Your task to perform on an android device: Go to network settings Image 0: 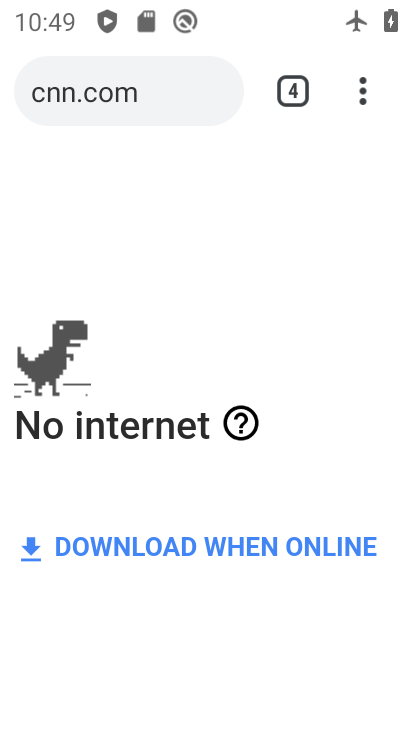
Step 0: press home button
Your task to perform on an android device: Go to network settings Image 1: 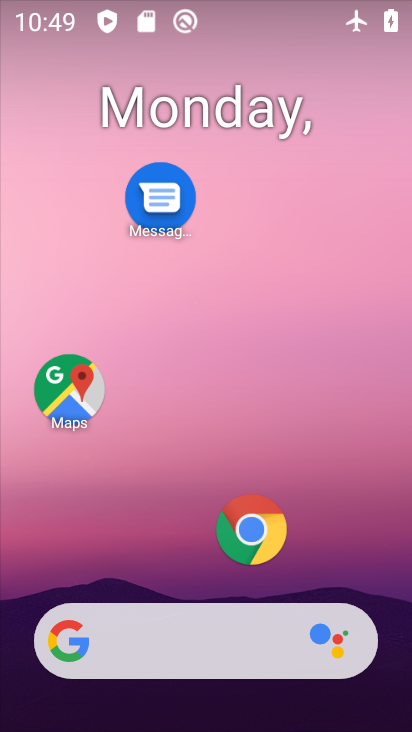
Step 1: drag from (148, 536) to (279, 169)
Your task to perform on an android device: Go to network settings Image 2: 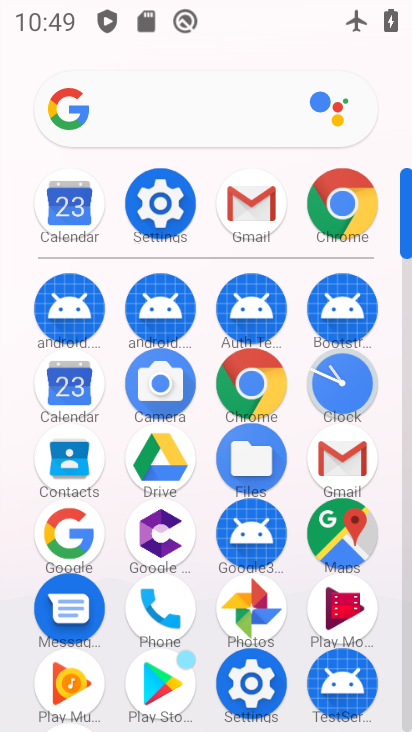
Step 2: click (259, 688)
Your task to perform on an android device: Go to network settings Image 3: 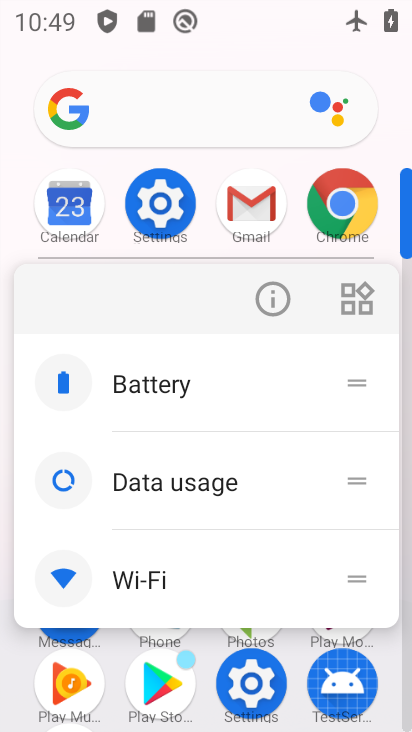
Step 3: click (256, 692)
Your task to perform on an android device: Go to network settings Image 4: 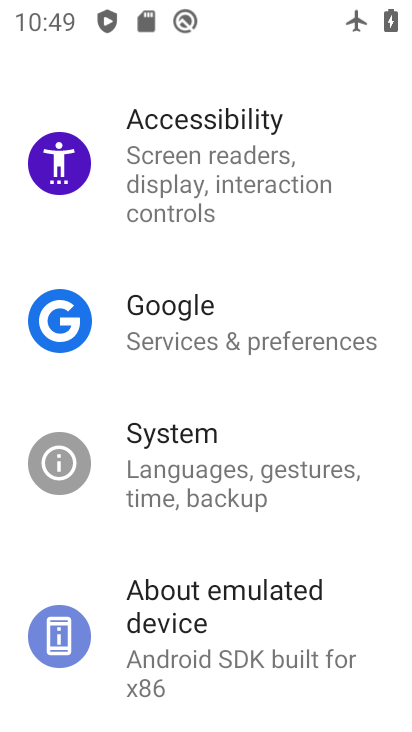
Step 4: drag from (300, 249) to (258, 725)
Your task to perform on an android device: Go to network settings Image 5: 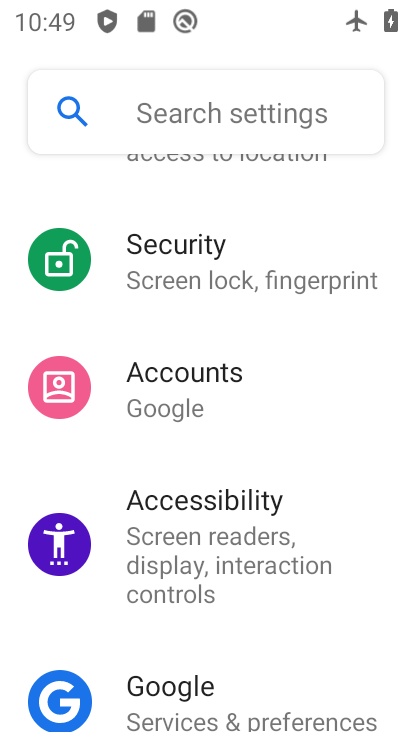
Step 5: drag from (331, 311) to (268, 684)
Your task to perform on an android device: Go to network settings Image 6: 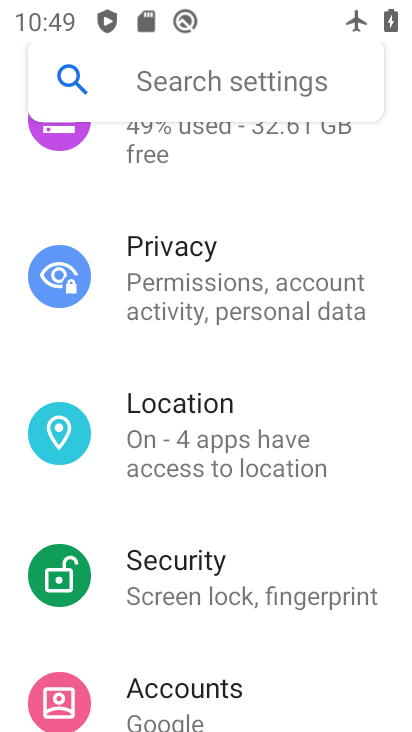
Step 6: drag from (287, 277) to (257, 730)
Your task to perform on an android device: Go to network settings Image 7: 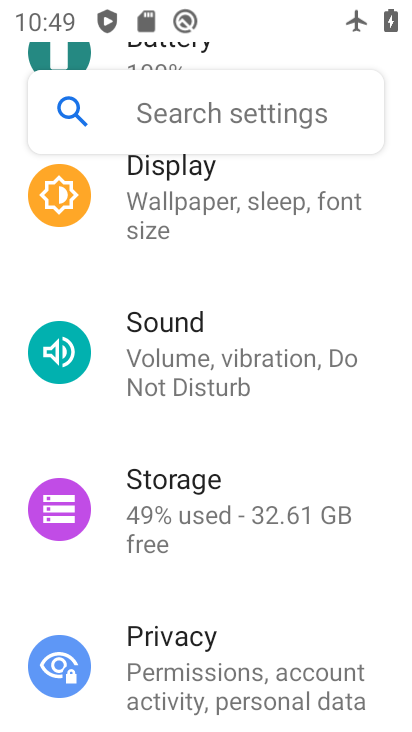
Step 7: drag from (276, 282) to (256, 714)
Your task to perform on an android device: Go to network settings Image 8: 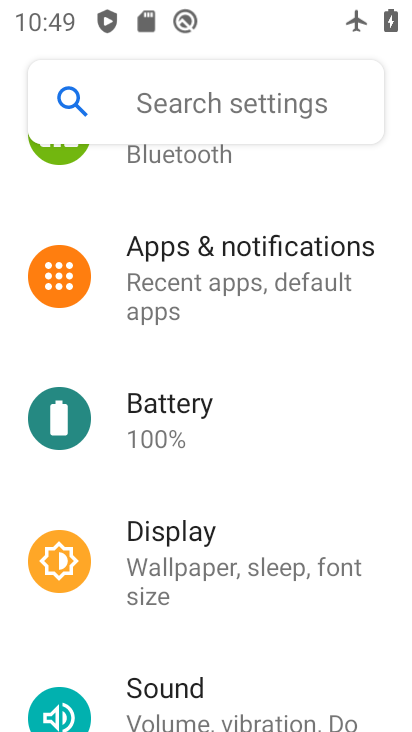
Step 8: drag from (265, 315) to (222, 723)
Your task to perform on an android device: Go to network settings Image 9: 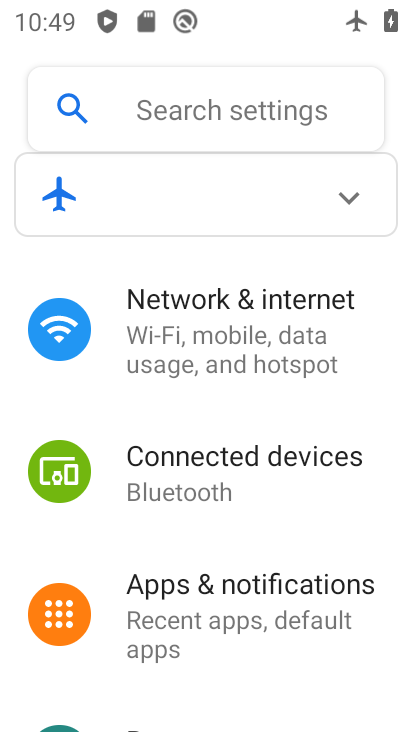
Step 9: click (263, 341)
Your task to perform on an android device: Go to network settings Image 10: 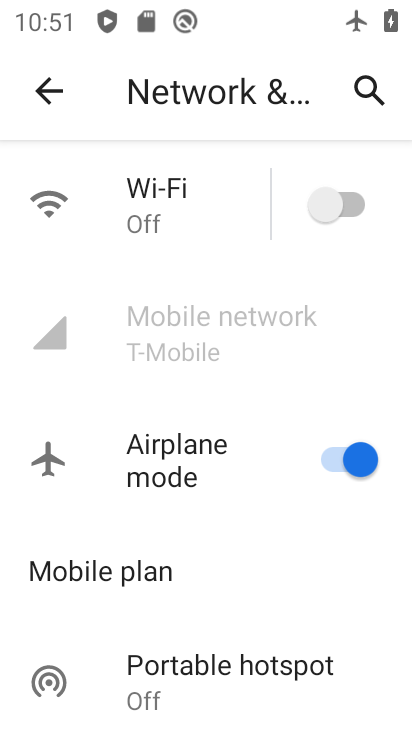
Step 10: task complete